Your task to perform on an android device: Open the calendar and show me this week's events? Image 0: 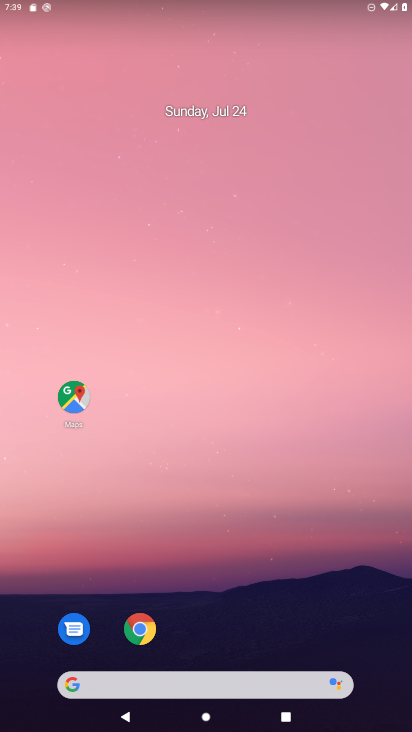
Step 0: drag from (328, 641) to (160, 9)
Your task to perform on an android device: Open the calendar and show me this week's events? Image 1: 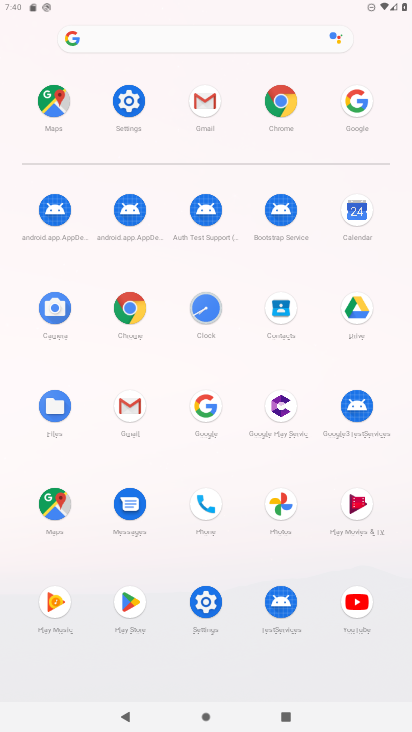
Step 1: click (353, 203)
Your task to perform on an android device: Open the calendar and show me this week's events? Image 2: 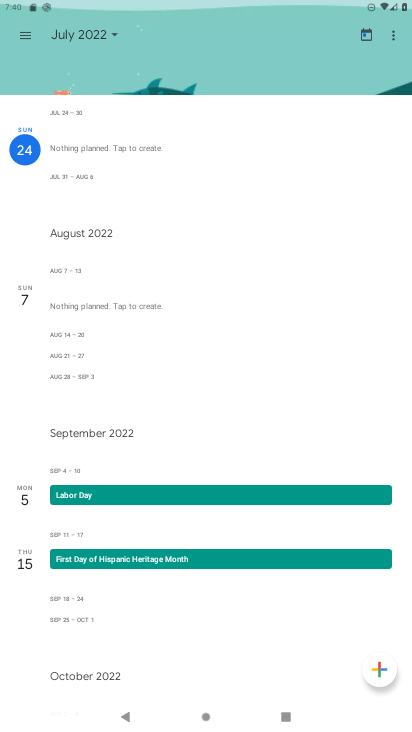
Step 2: task complete